Your task to perform on an android device: Is it going to rain this weekend? Image 0: 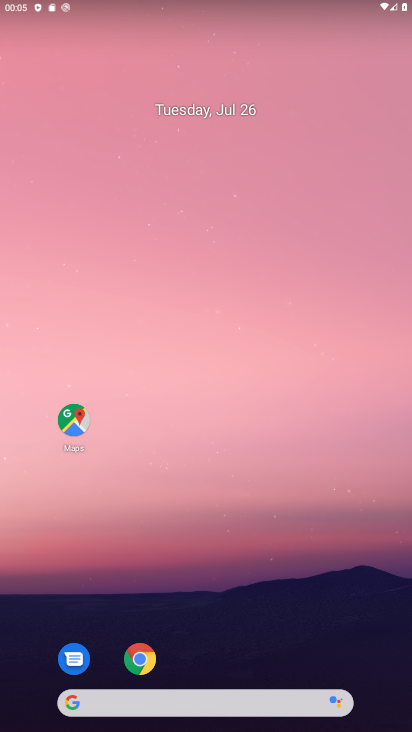
Step 0: drag from (239, 621) to (183, 11)
Your task to perform on an android device: Is it going to rain this weekend? Image 1: 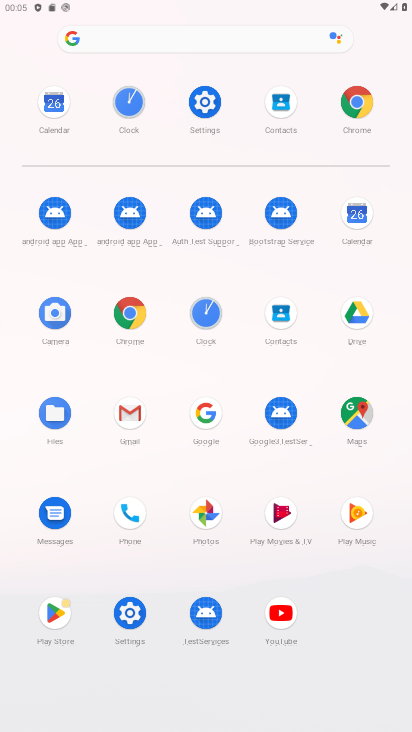
Step 1: click (349, 105)
Your task to perform on an android device: Is it going to rain this weekend? Image 2: 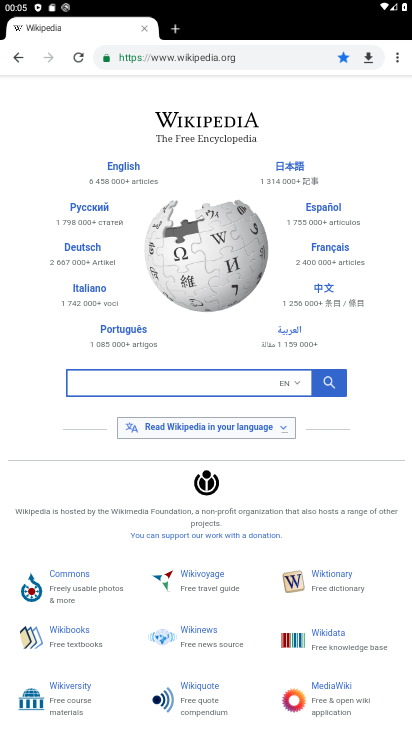
Step 2: click (170, 51)
Your task to perform on an android device: Is it going to rain this weekend? Image 3: 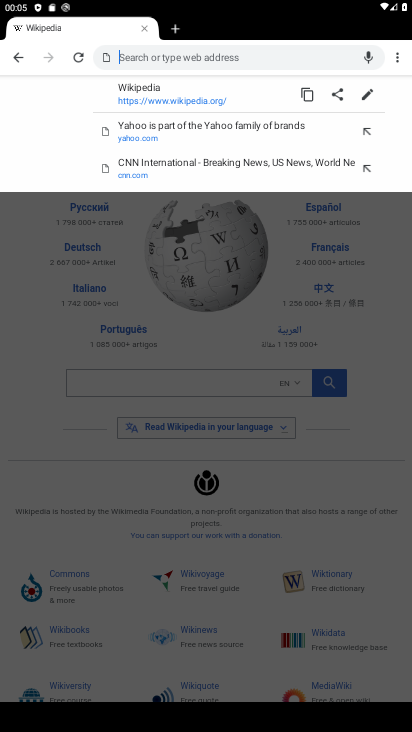
Step 3: type "weather"
Your task to perform on an android device: Is it going to rain this weekend? Image 4: 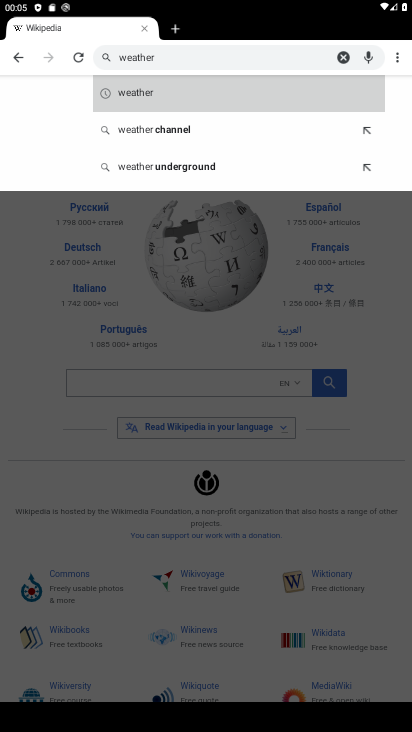
Step 4: click (121, 92)
Your task to perform on an android device: Is it going to rain this weekend? Image 5: 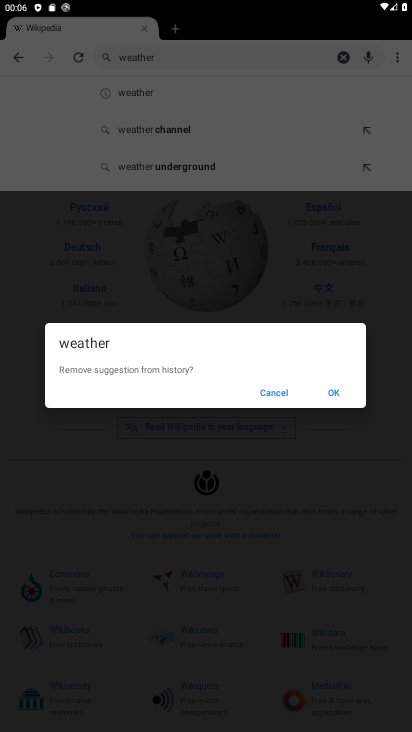
Step 5: click (266, 391)
Your task to perform on an android device: Is it going to rain this weekend? Image 6: 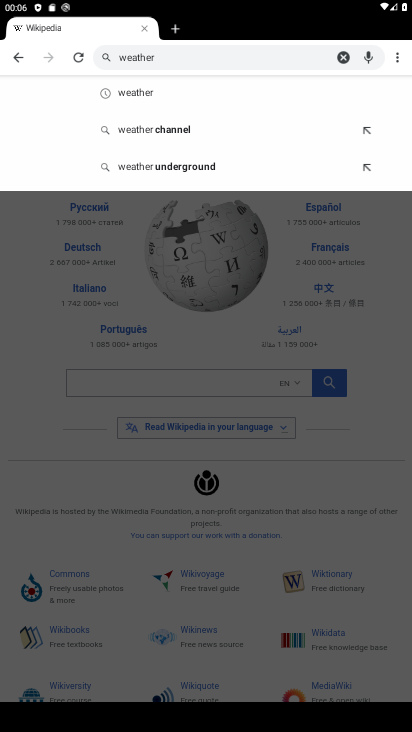
Step 6: click (146, 93)
Your task to perform on an android device: Is it going to rain this weekend? Image 7: 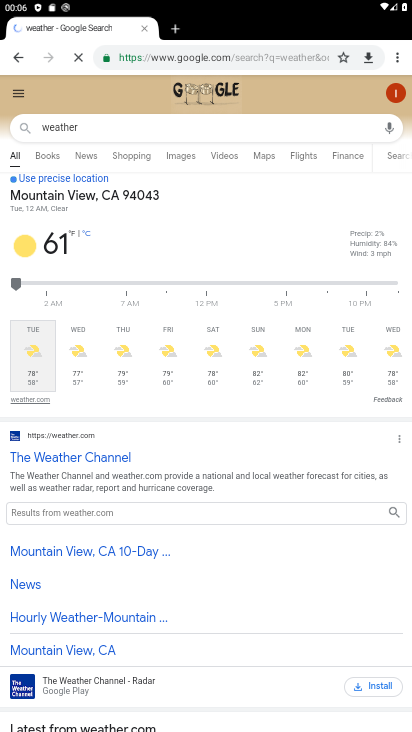
Step 7: click (167, 348)
Your task to perform on an android device: Is it going to rain this weekend? Image 8: 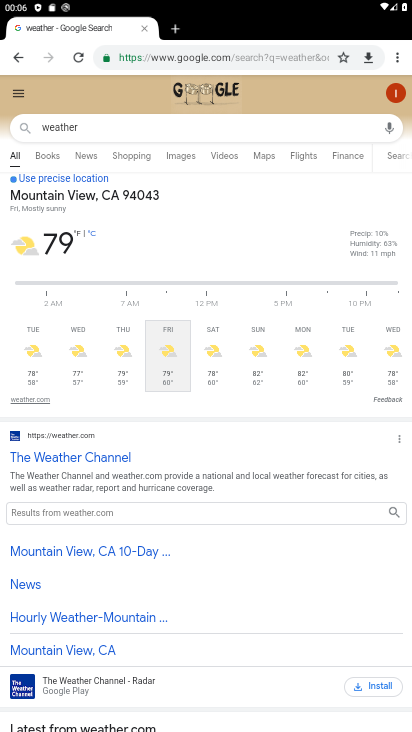
Step 8: click (210, 346)
Your task to perform on an android device: Is it going to rain this weekend? Image 9: 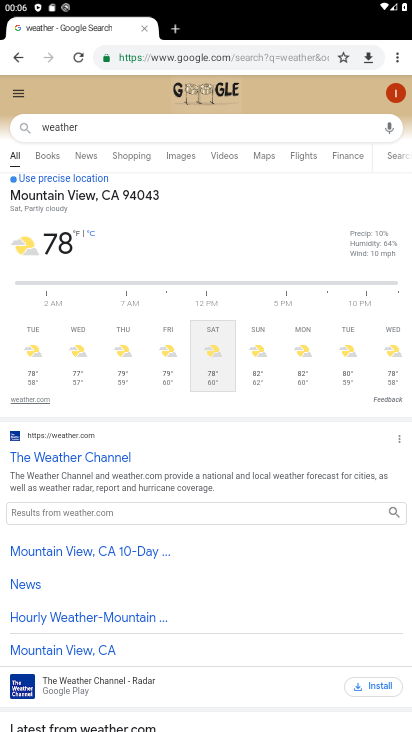
Step 9: task complete